Your task to perform on an android device: show emergency info Image 0: 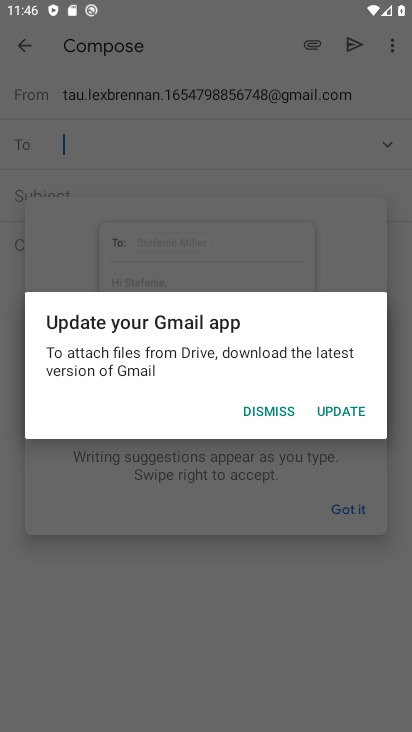
Step 0: press home button
Your task to perform on an android device: show emergency info Image 1: 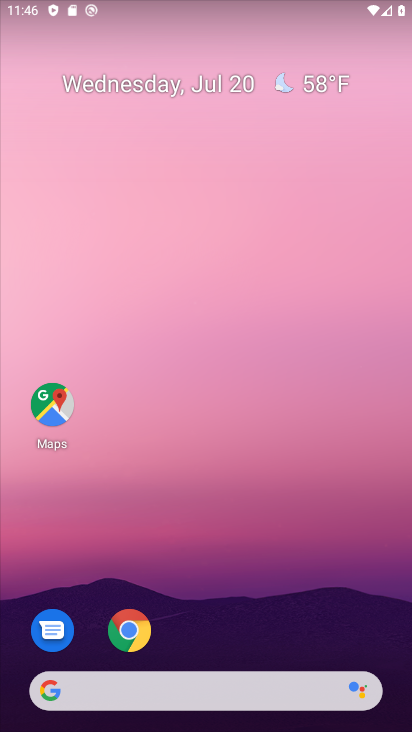
Step 1: drag from (242, 680) to (277, 77)
Your task to perform on an android device: show emergency info Image 2: 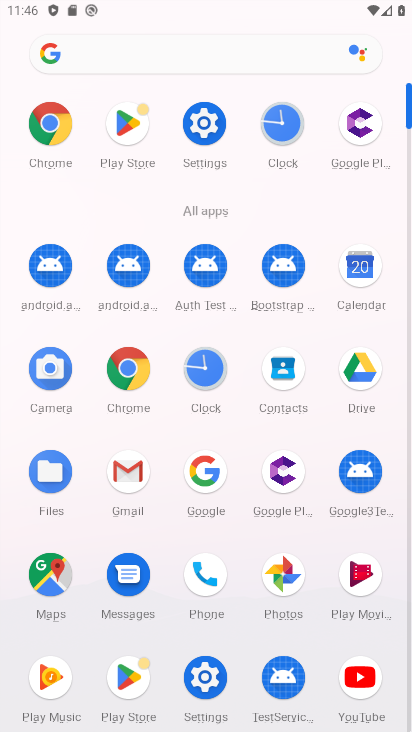
Step 2: click (204, 696)
Your task to perform on an android device: show emergency info Image 3: 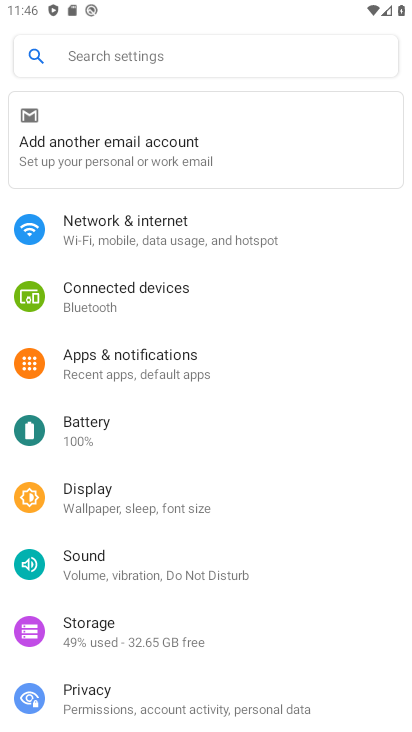
Step 3: drag from (201, 654) to (173, 219)
Your task to perform on an android device: show emergency info Image 4: 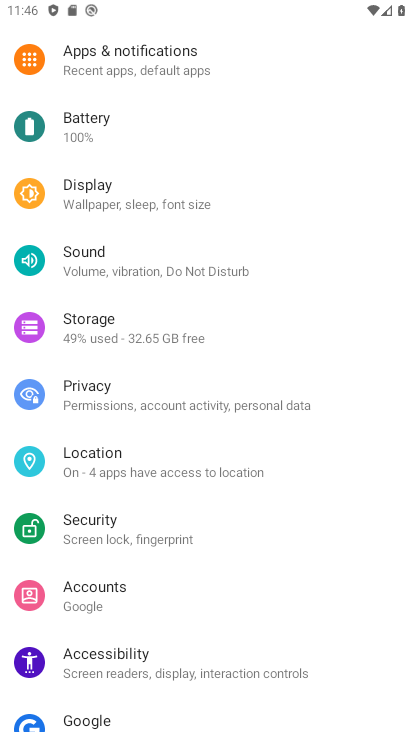
Step 4: drag from (143, 645) to (251, 107)
Your task to perform on an android device: show emergency info Image 5: 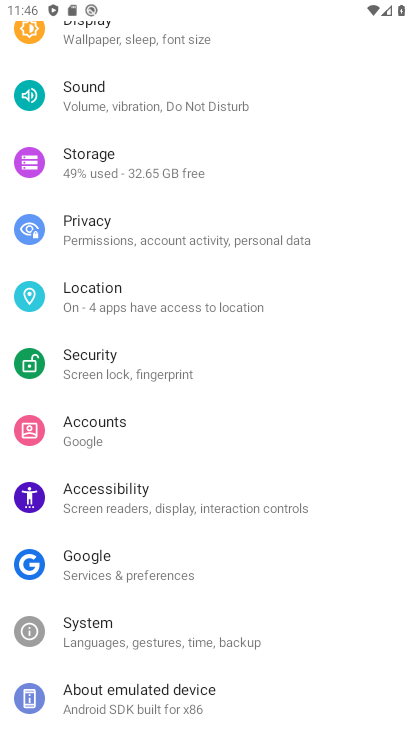
Step 5: click (170, 696)
Your task to perform on an android device: show emergency info Image 6: 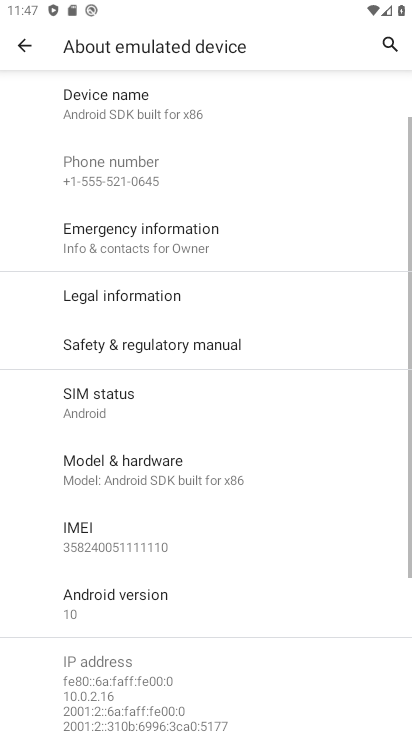
Step 6: click (177, 248)
Your task to perform on an android device: show emergency info Image 7: 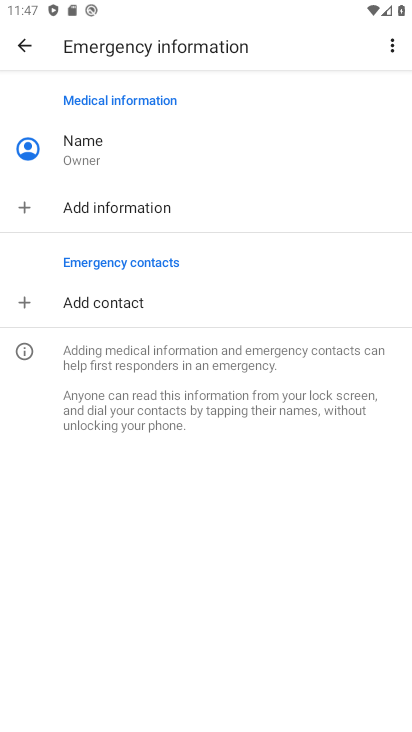
Step 7: task complete